Your task to perform on an android device: toggle pop-ups in chrome Image 0: 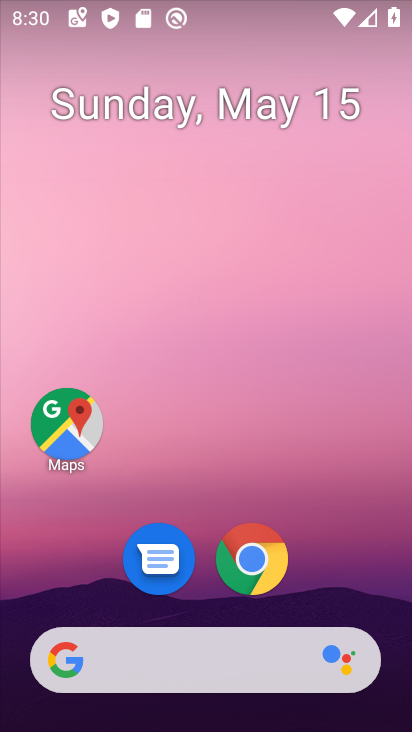
Step 0: click (266, 573)
Your task to perform on an android device: toggle pop-ups in chrome Image 1: 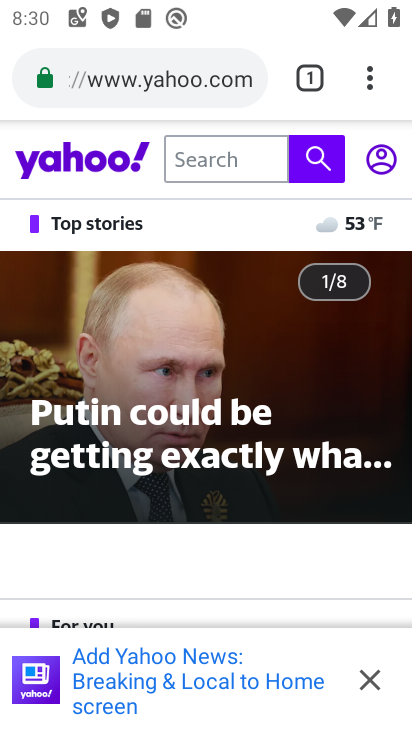
Step 1: click (366, 100)
Your task to perform on an android device: toggle pop-ups in chrome Image 2: 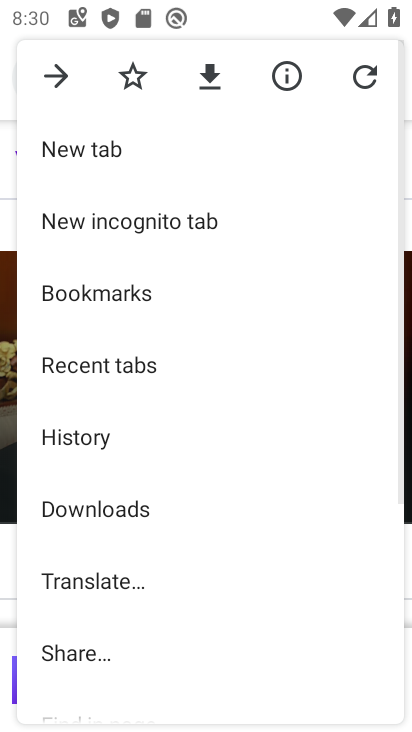
Step 2: drag from (163, 575) to (204, 257)
Your task to perform on an android device: toggle pop-ups in chrome Image 3: 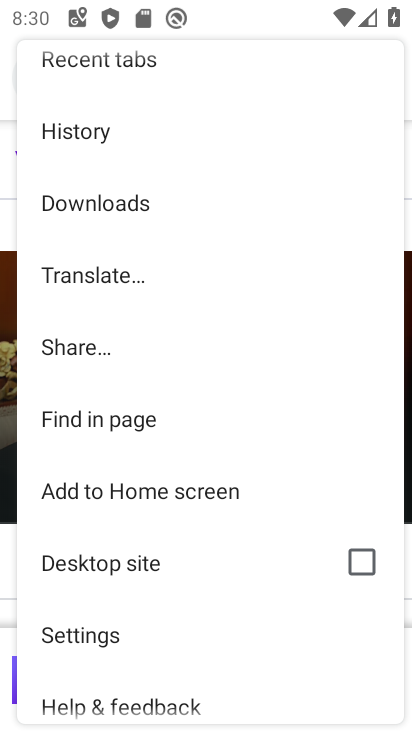
Step 3: click (124, 626)
Your task to perform on an android device: toggle pop-ups in chrome Image 4: 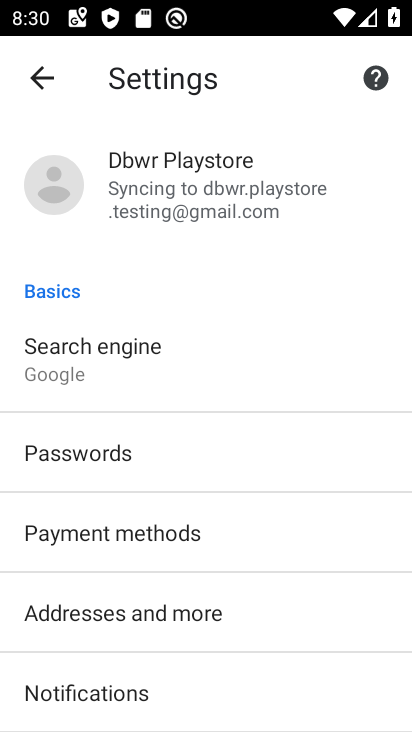
Step 4: drag from (139, 494) to (142, 401)
Your task to perform on an android device: toggle pop-ups in chrome Image 5: 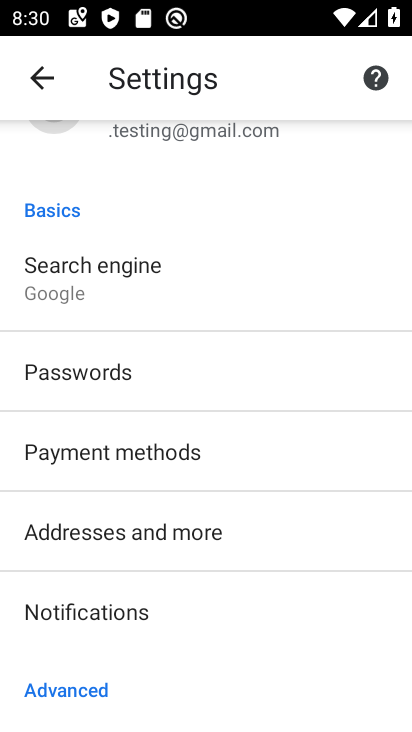
Step 5: drag from (157, 605) to (190, 428)
Your task to perform on an android device: toggle pop-ups in chrome Image 6: 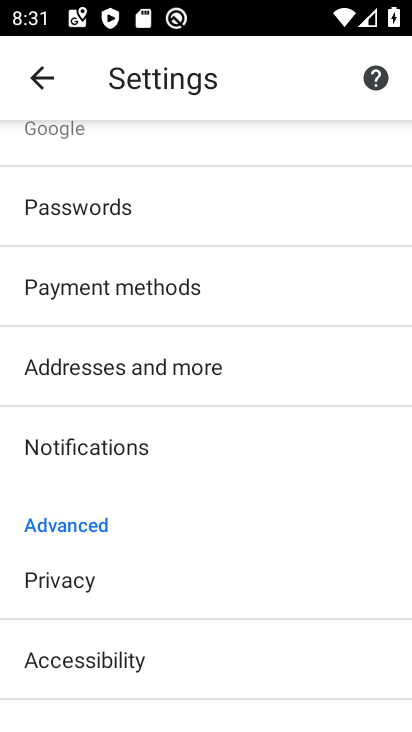
Step 6: drag from (144, 588) to (181, 332)
Your task to perform on an android device: toggle pop-ups in chrome Image 7: 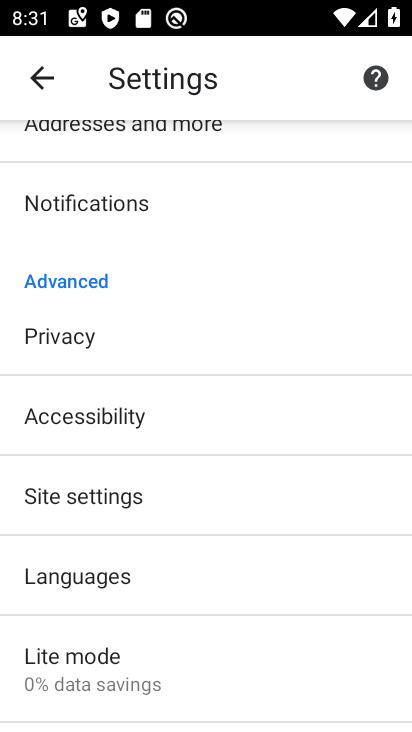
Step 7: click (198, 517)
Your task to perform on an android device: toggle pop-ups in chrome Image 8: 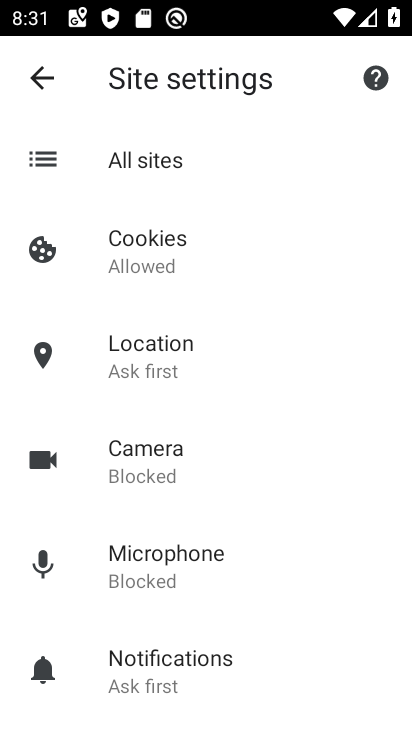
Step 8: drag from (195, 577) to (206, 492)
Your task to perform on an android device: toggle pop-ups in chrome Image 9: 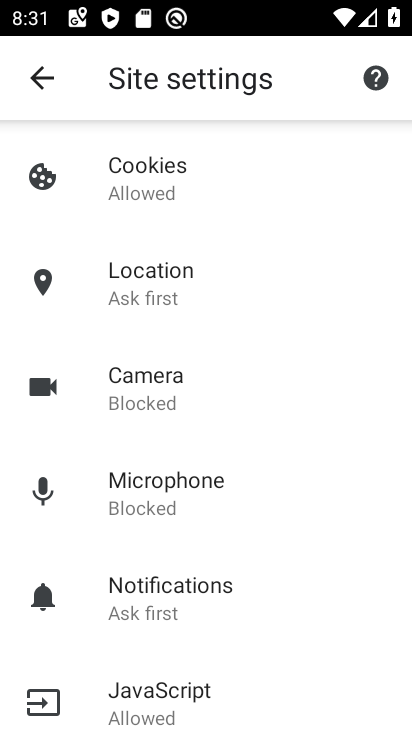
Step 9: drag from (287, 556) to (308, 391)
Your task to perform on an android device: toggle pop-ups in chrome Image 10: 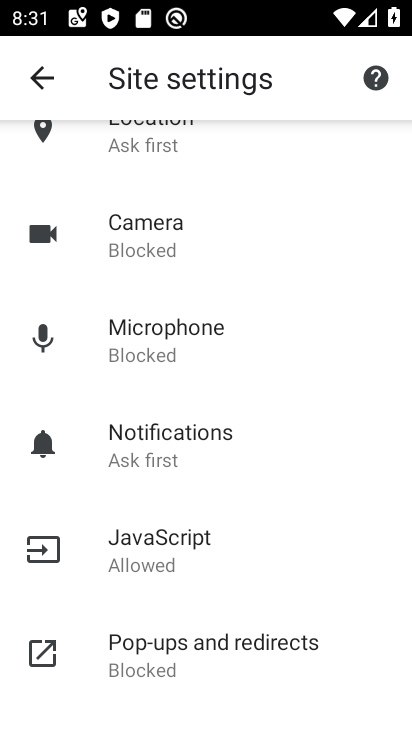
Step 10: click (224, 635)
Your task to perform on an android device: toggle pop-ups in chrome Image 11: 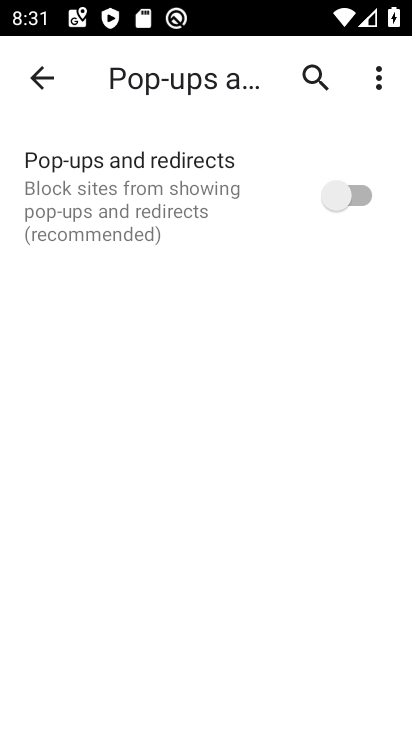
Step 11: task complete